Your task to perform on an android device: turn off data saver in the chrome app Image 0: 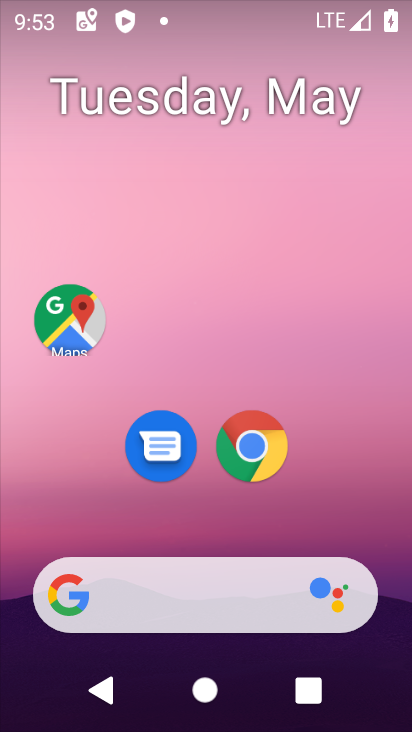
Step 0: click (264, 439)
Your task to perform on an android device: turn off data saver in the chrome app Image 1: 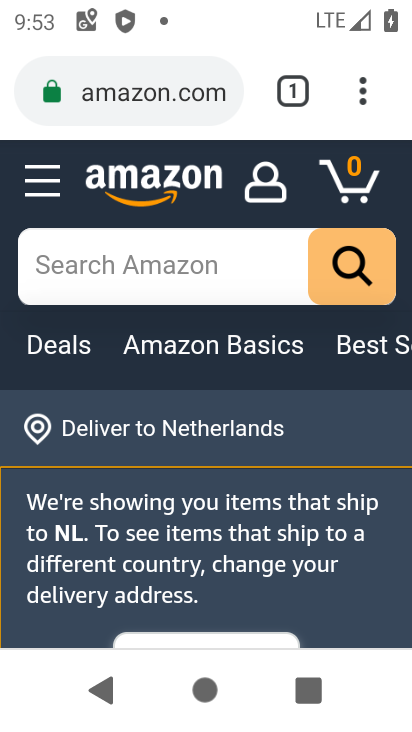
Step 1: drag from (355, 91) to (98, 473)
Your task to perform on an android device: turn off data saver in the chrome app Image 2: 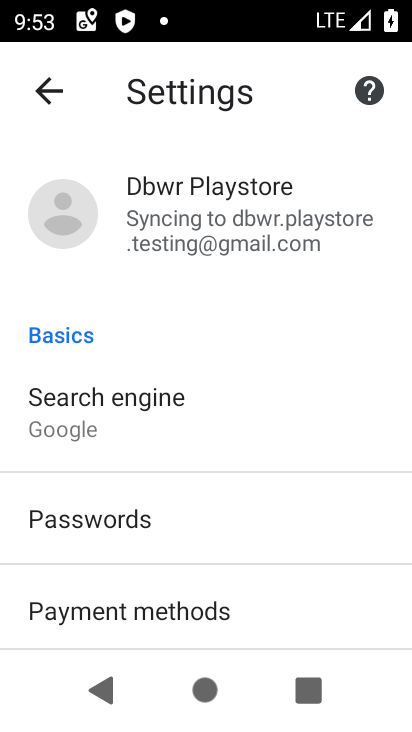
Step 2: drag from (219, 564) to (185, 103)
Your task to perform on an android device: turn off data saver in the chrome app Image 3: 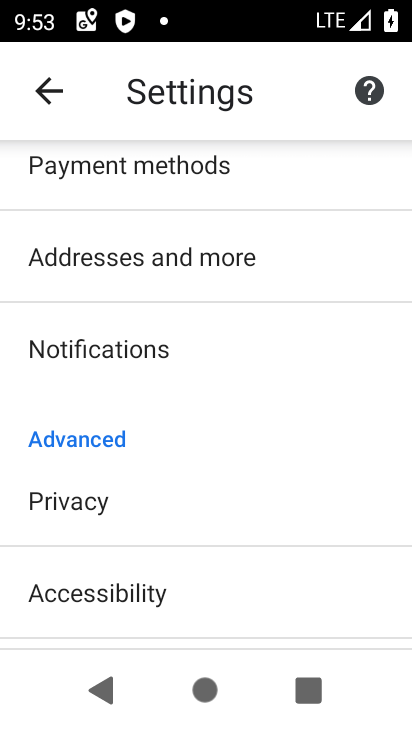
Step 3: drag from (176, 536) to (190, 89)
Your task to perform on an android device: turn off data saver in the chrome app Image 4: 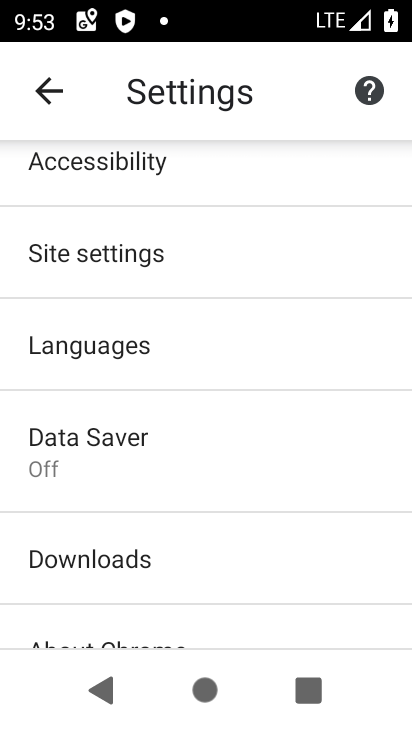
Step 4: click (118, 474)
Your task to perform on an android device: turn off data saver in the chrome app Image 5: 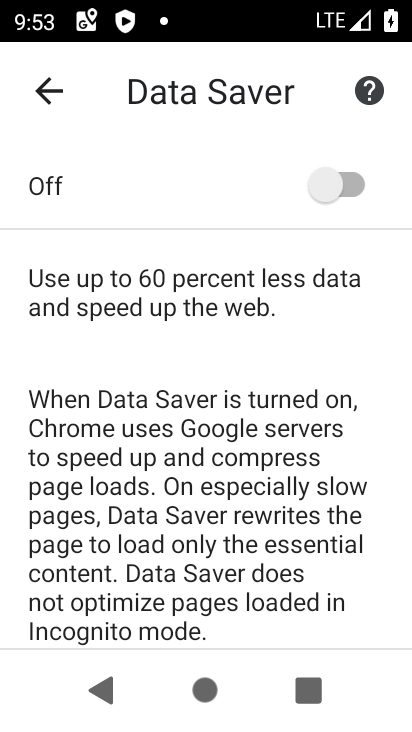
Step 5: task complete